Your task to perform on an android device: find photos in the google photos app Image 0: 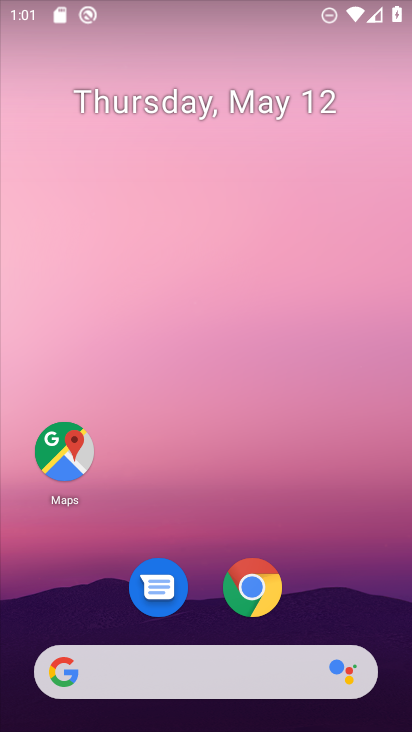
Step 0: drag from (335, 605) to (185, 23)
Your task to perform on an android device: find photos in the google photos app Image 1: 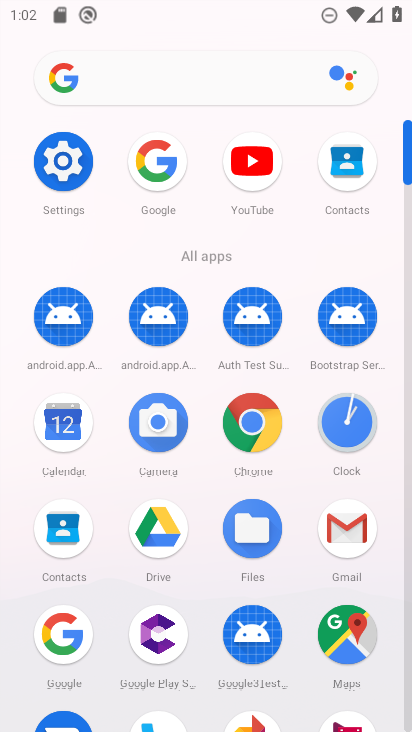
Step 1: drag from (286, 581) to (301, 250)
Your task to perform on an android device: find photos in the google photos app Image 2: 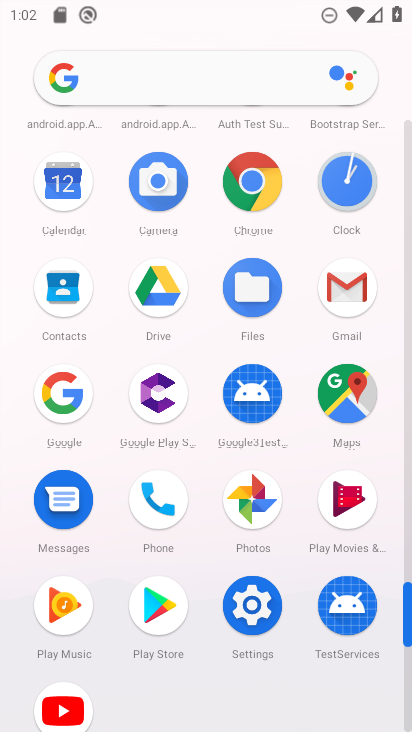
Step 2: click (253, 497)
Your task to perform on an android device: find photos in the google photos app Image 3: 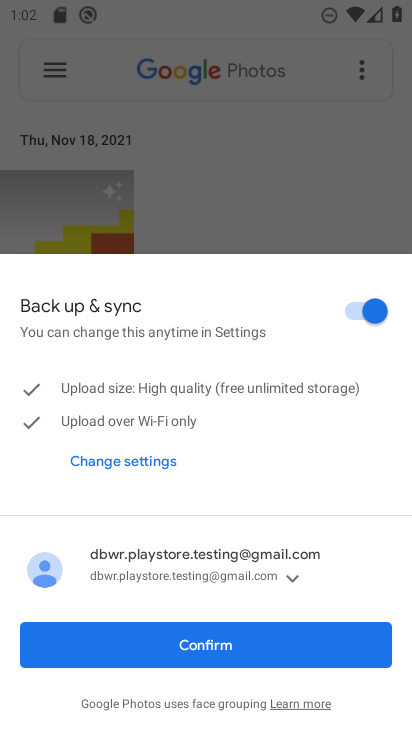
Step 3: click (189, 643)
Your task to perform on an android device: find photos in the google photos app Image 4: 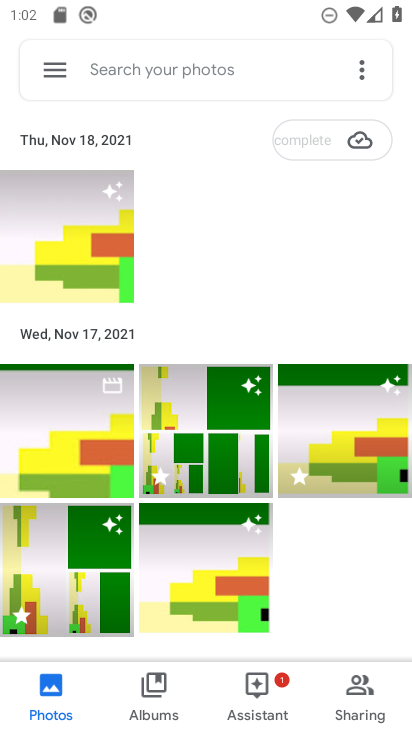
Step 4: click (196, 66)
Your task to perform on an android device: find photos in the google photos app Image 5: 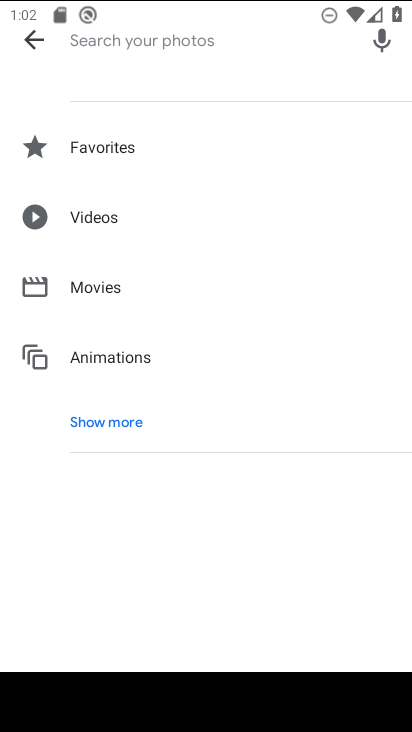
Step 5: click (91, 154)
Your task to perform on an android device: find photos in the google photos app Image 6: 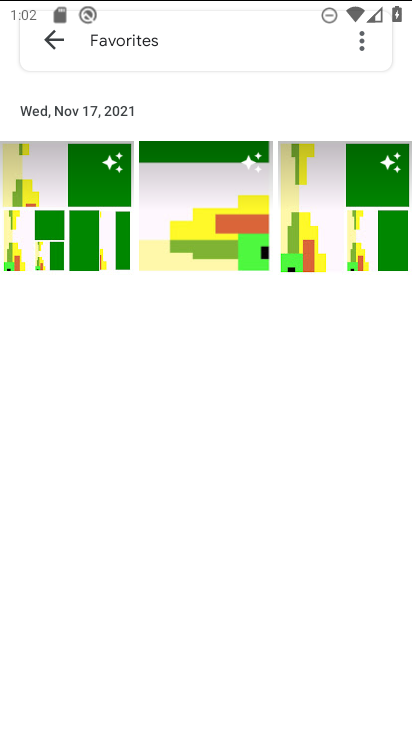
Step 6: task complete